Your task to perform on an android device: What's the weather going to be tomorrow? Image 0: 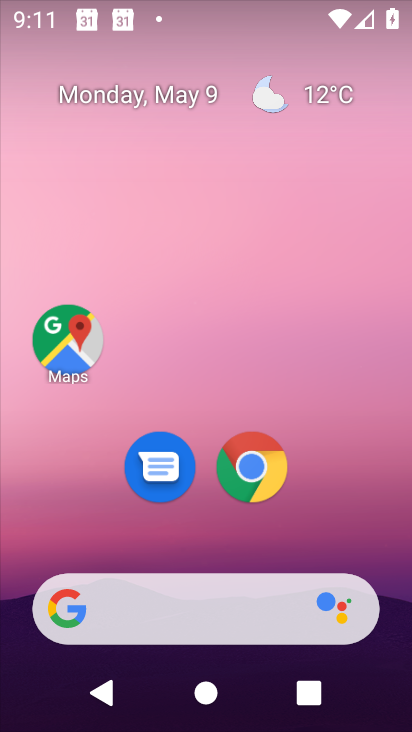
Step 0: click (316, 103)
Your task to perform on an android device: What's the weather going to be tomorrow? Image 1: 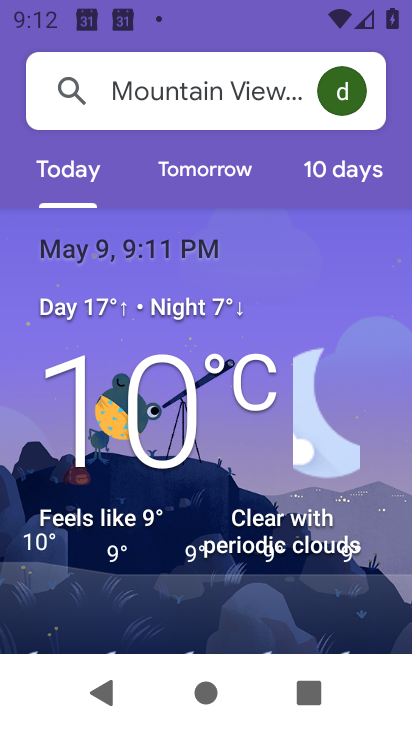
Step 1: click (226, 181)
Your task to perform on an android device: What's the weather going to be tomorrow? Image 2: 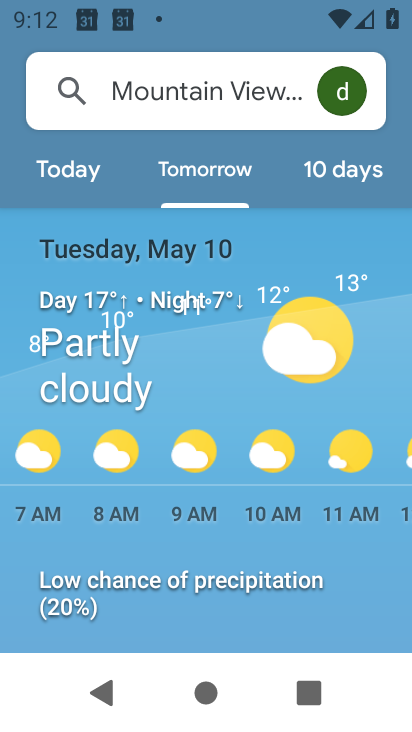
Step 2: task complete